Your task to perform on an android device: show emergency info Image 0: 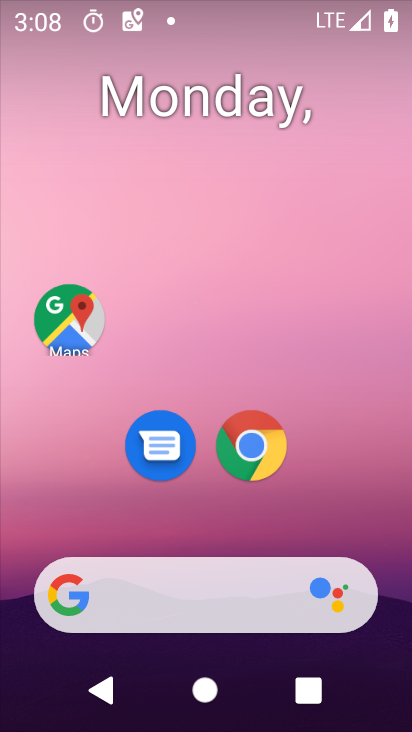
Step 0: drag from (144, 586) to (193, 145)
Your task to perform on an android device: show emergency info Image 1: 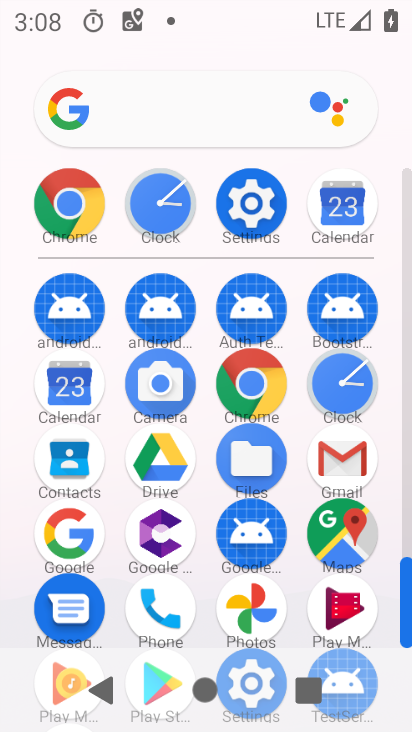
Step 1: click (249, 216)
Your task to perform on an android device: show emergency info Image 2: 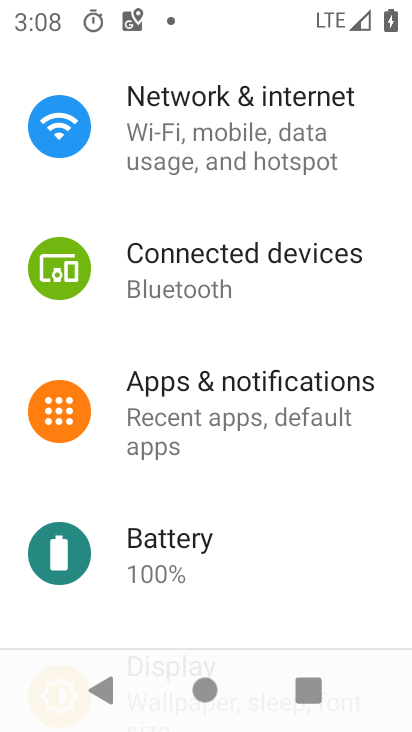
Step 2: drag from (241, 526) to (204, 40)
Your task to perform on an android device: show emergency info Image 3: 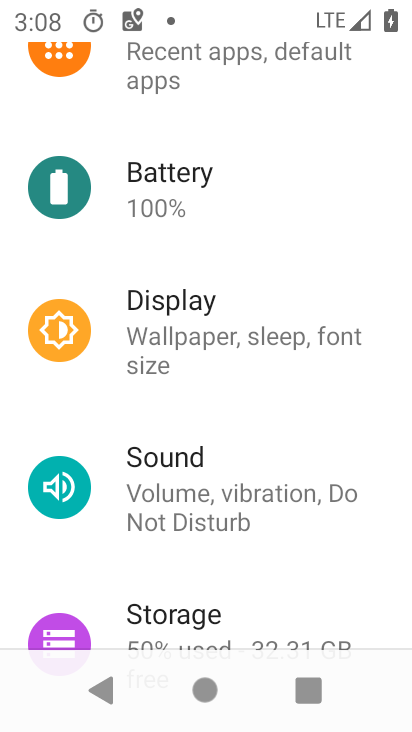
Step 3: drag from (229, 468) to (230, 35)
Your task to perform on an android device: show emergency info Image 4: 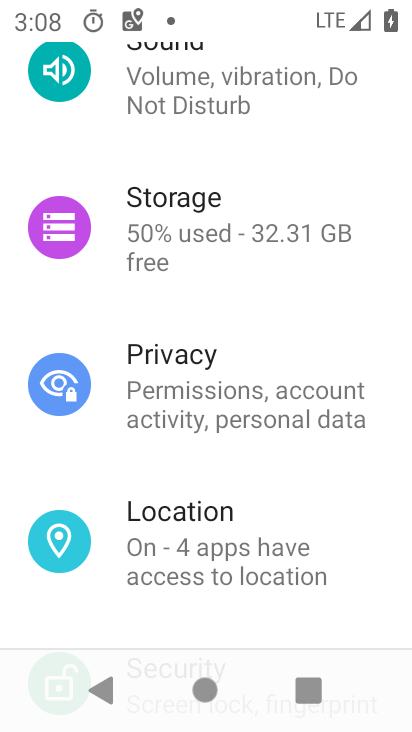
Step 4: drag from (205, 603) to (187, 95)
Your task to perform on an android device: show emergency info Image 5: 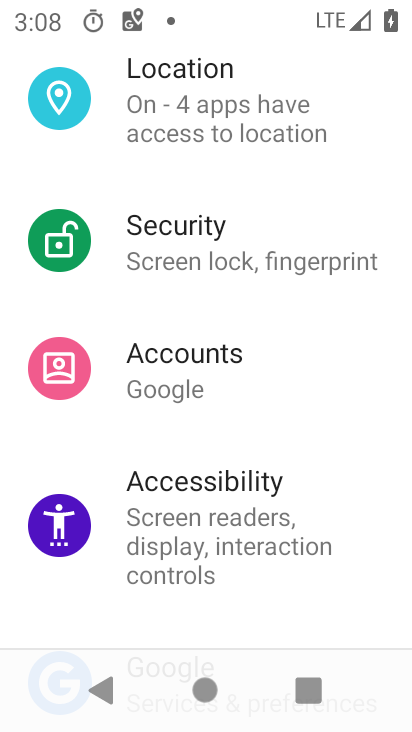
Step 5: drag from (202, 552) to (179, 97)
Your task to perform on an android device: show emergency info Image 6: 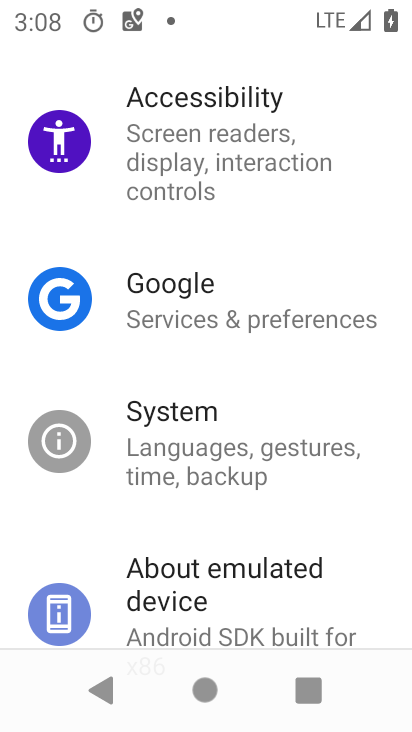
Step 6: drag from (211, 580) to (188, 108)
Your task to perform on an android device: show emergency info Image 7: 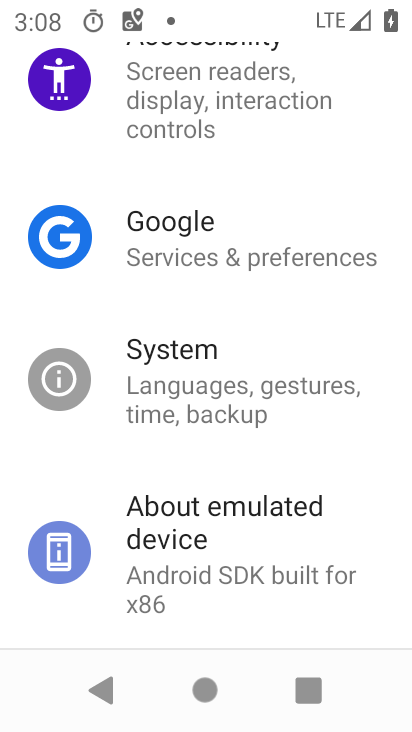
Step 7: click (216, 544)
Your task to perform on an android device: show emergency info Image 8: 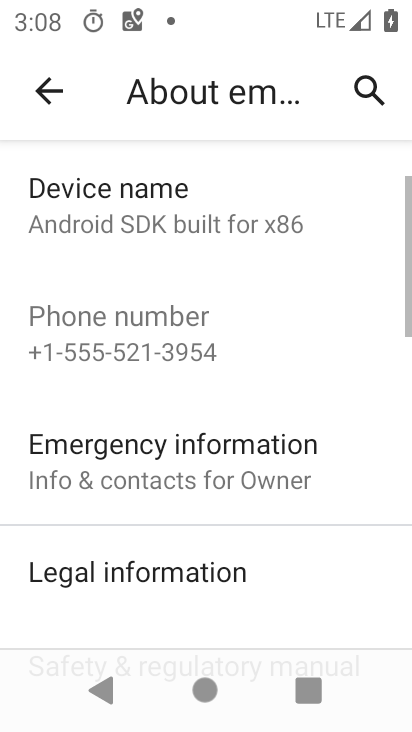
Step 8: click (181, 463)
Your task to perform on an android device: show emergency info Image 9: 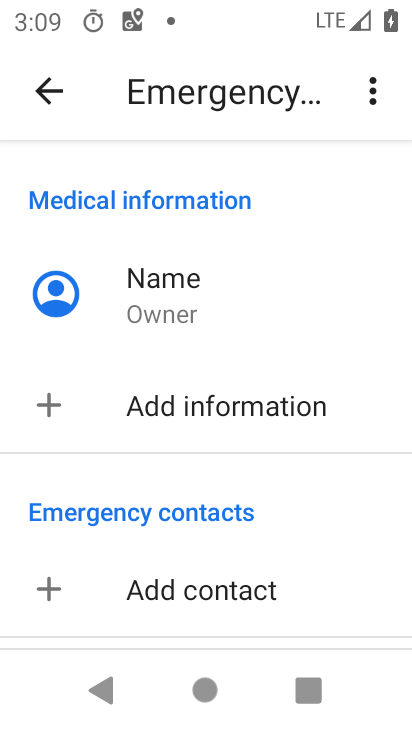
Step 9: task complete